Your task to perform on an android device: Open Wikipedia Image 0: 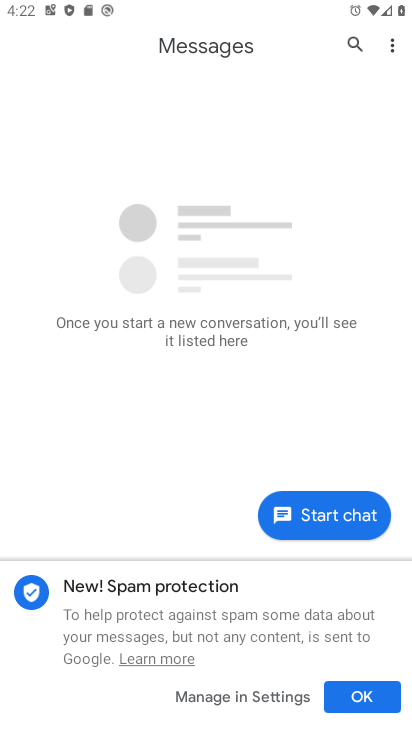
Step 0: press home button
Your task to perform on an android device: Open Wikipedia Image 1: 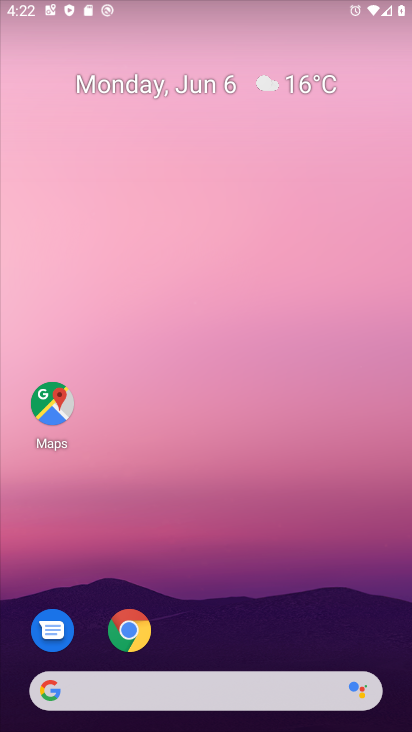
Step 1: drag from (279, 505) to (249, 18)
Your task to perform on an android device: Open Wikipedia Image 2: 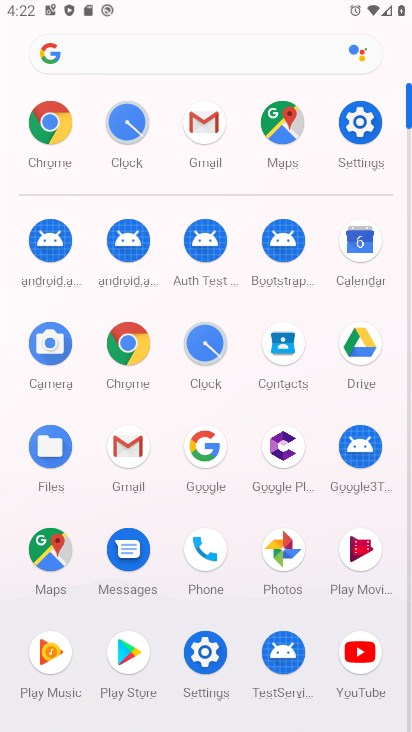
Step 2: click (135, 350)
Your task to perform on an android device: Open Wikipedia Image 3: 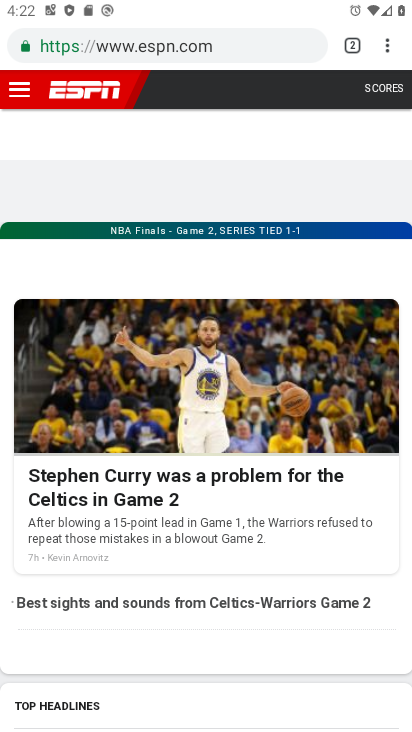
Step 3: click (351, 40)
Your task to perform on an android device: Open Wikipedia Image 4: 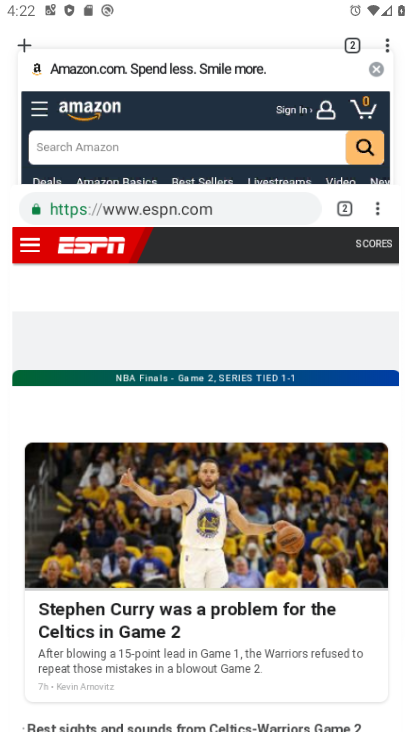
Step 4: click (19, 45)
Your task to perform on an android device: Open Wikipedia Image 5: 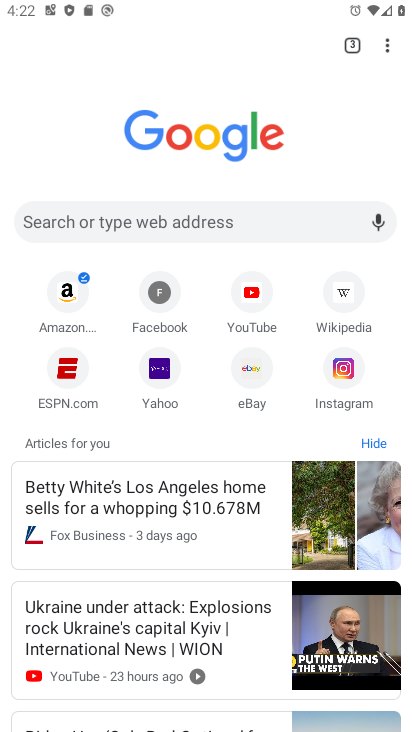
Step 5: click (348, 293)
Your task to perform on an android device: Open Wikipedia Image 6: 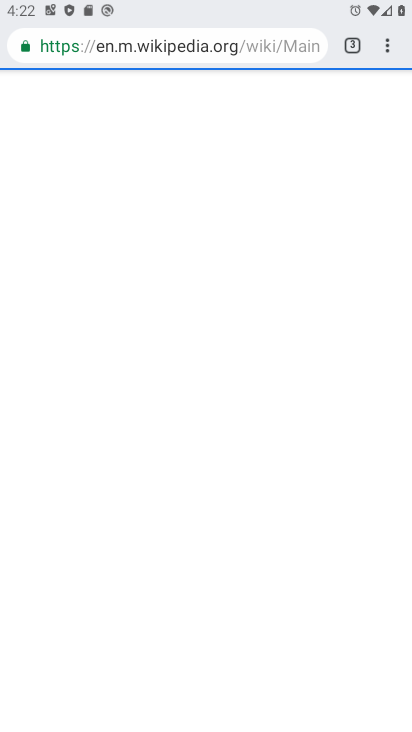
Step 6: task complete